Your task to perform on an android device: check battery use Image 0: 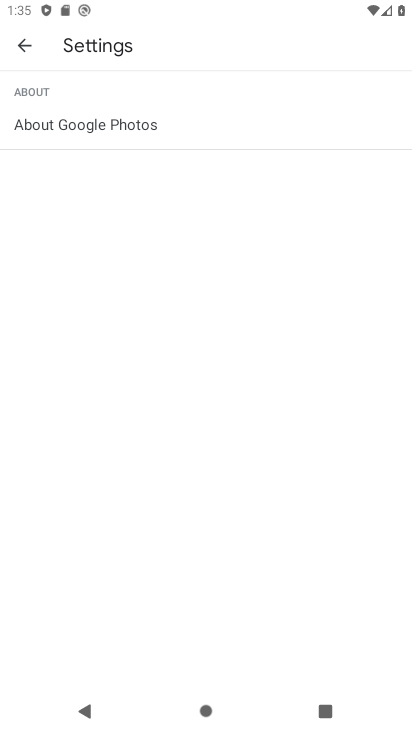
Step 0: press home button
Your task to perform on an android device: check battery use Image 1: 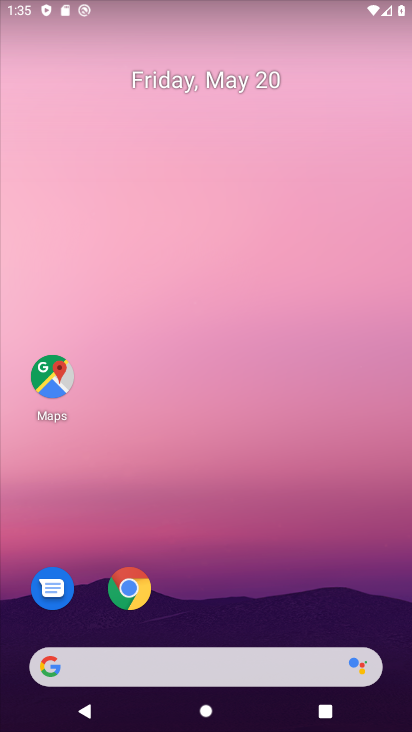
Step 1: drag from (202, 658) to (151, 18)
Your task to perform on an android device: check battery use Image 2: 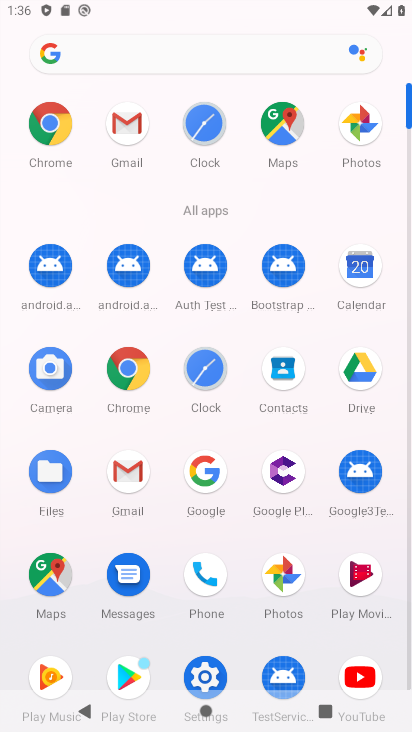
Step 2: click (204, 659)
Your task to perform on an android device: check battery use Image 3: 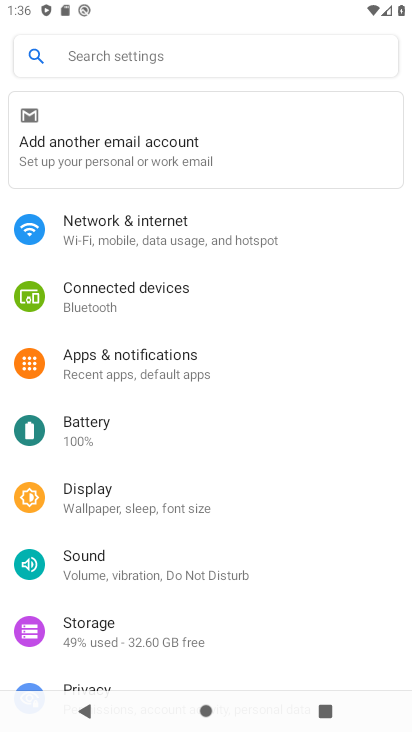
Step 3: click (86, 435)
Your task to perform on an android device: check battery use Image 4: 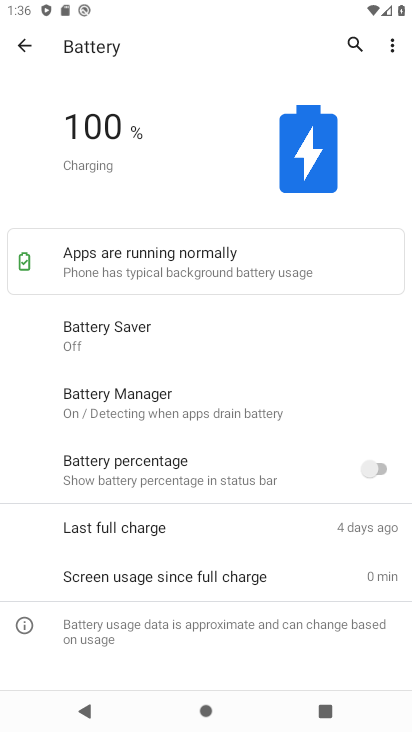
Step 4: click (391, 46)
Your task to perform on an android device: check battery use Image 5: 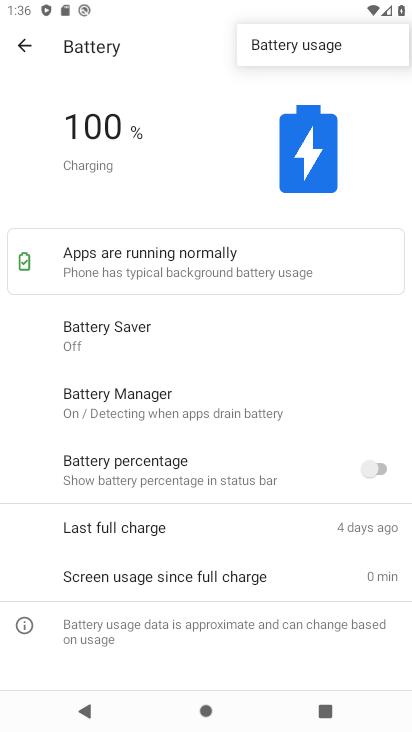
Step 5: click (266, 53)
Your task to perform on an android device: check battery use Image 6: 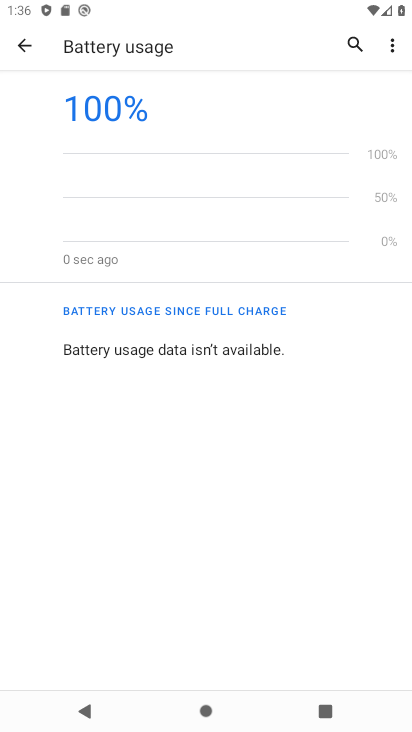
Step 6: task complete